Your task to perform on an android device: add a label to a message in the gmail app Image 0: 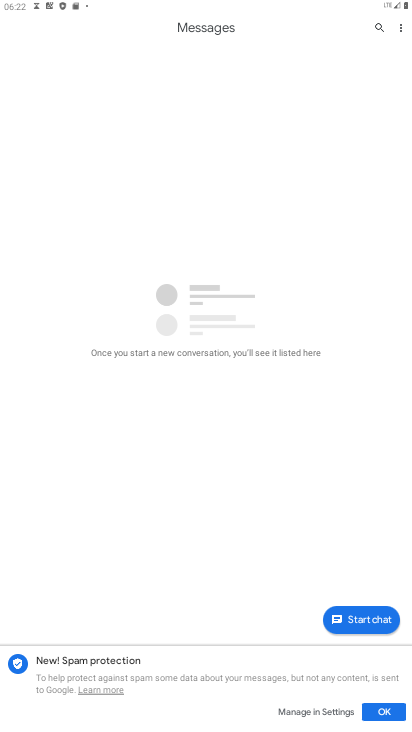
Step 0: press home button
Your task to perform on an android device: add a label to a message in the gmail app Image 1: 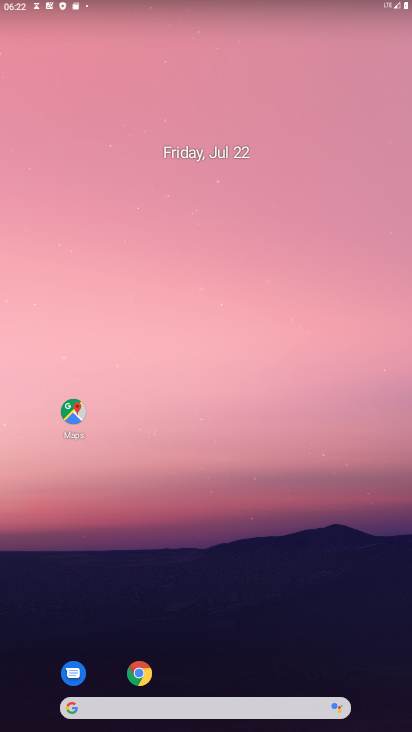
Step 1: drag from (230, 639) to (355, 53)
Your task to perform on an android device: add a label to a message in the gmail app Image 2: 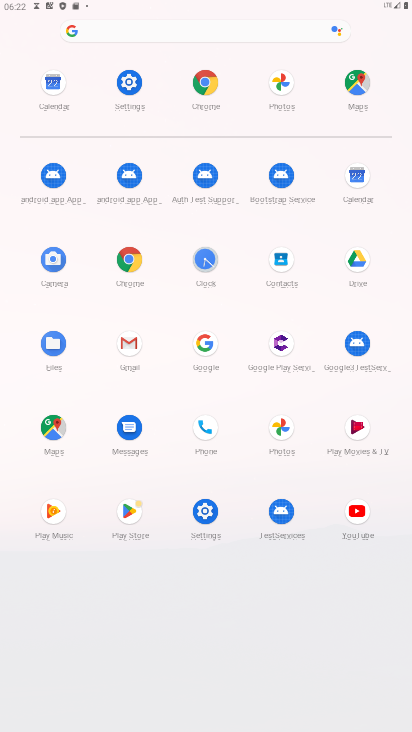
Step 2: click (125, 344)
Your task to perform on an android device: add a label to a message in the gmail app Image 3: 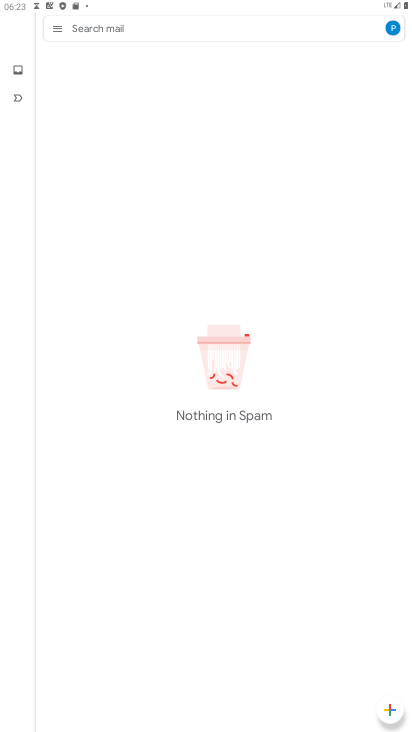
Step 3: click (57, 31)
Your task to perform on an android device: add a label to a message in the gmail app Image 4: 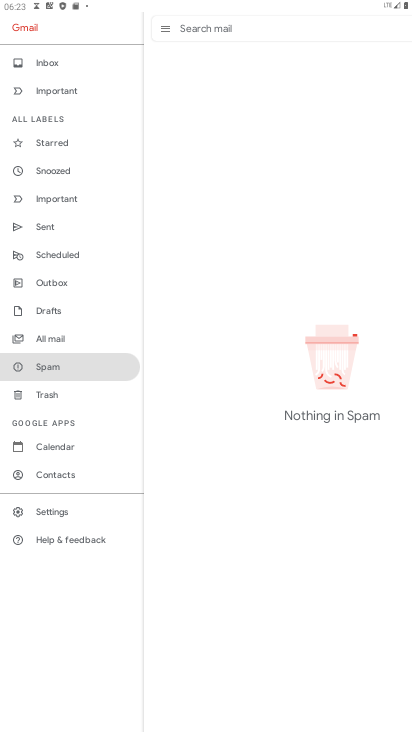
Step 4: click (57, 339)
Your task to perform on an android device: add a label to a message in the gmail app Image 5: 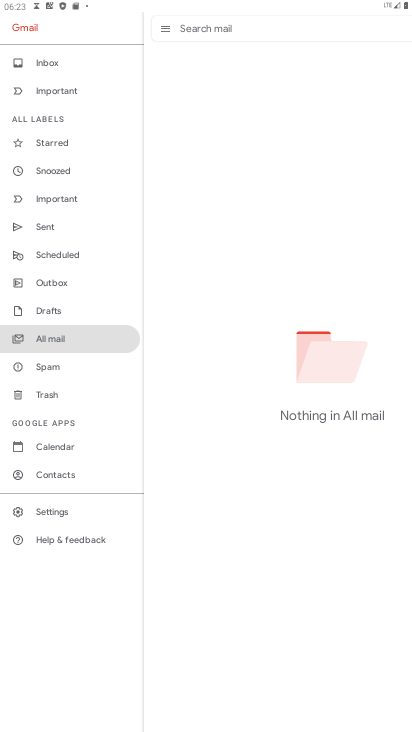
Step 5: task complete